Your task to perform on an android device: open app "ColorNote Notepad Notes" (install if not already installed) and go to login screen Image 0: 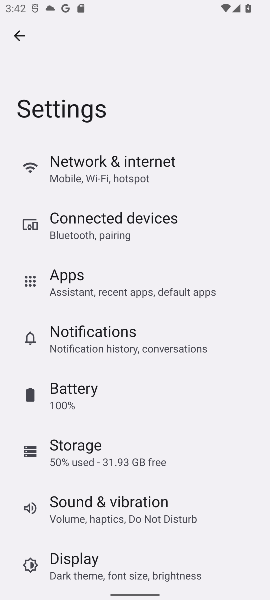
Step 0: press home button
Your task to perform on an android device: open app "ColorNote Notepad Notes" (install if not already installed) and go to login screen Image 1: 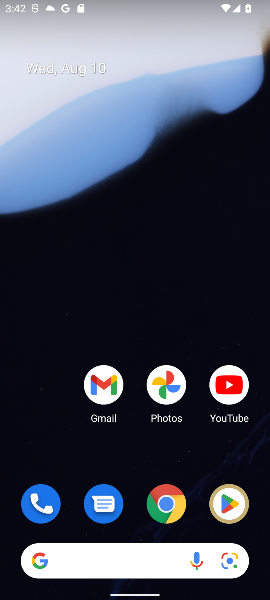
Step 1: click (222, 509)
Your task to perform on an android device: open app "ColorNote Notepad Notes" (install if not already installed) and go to login screen Image 2: 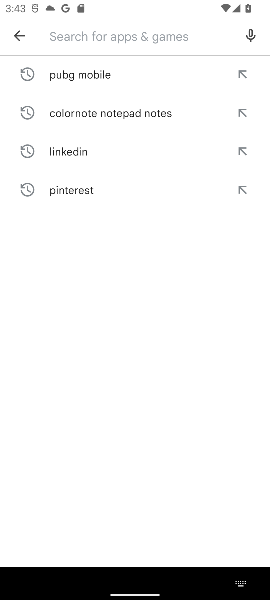
Step 2: click (76, 36)
Your task to perform on an android device: open app "ColorNote Notepad Notes" (install if not already installed) and go to login screen Image 3: 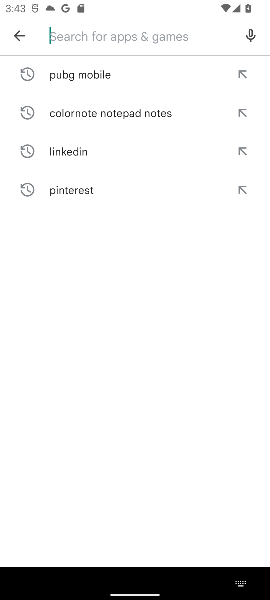
Step 3: type "ColorNote Notepad Notes"
Your task to perform on an android device: open app "ColorNote Notepad Notes" (install if not already installed) and go to login screen Image 4: 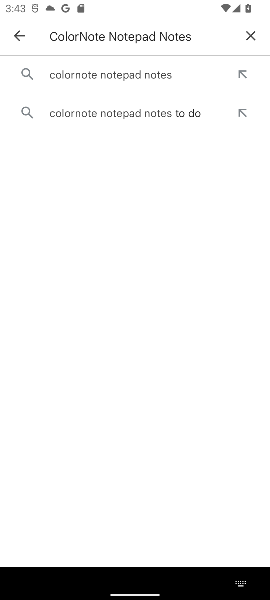
Step 4: click (125, 76)
Your task to perform on an android device: open app "ColorNote Notepad Notes" (install if not already installed) and go to login screen Image 5: 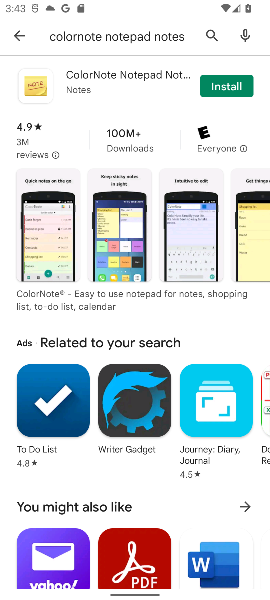
Step 5: click (218, 90)
Your task to perform on an android device: open app "ColorNote Notepad Notes" (install if not already installed) and go to login screen Image 6: 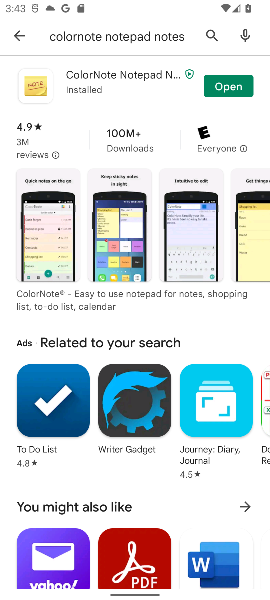
Step 6: click (228, 90)
Your task to perform on an android device: open app "ColorNote Notepad Notes" (install if not already installed) and go to login screen Image 7: 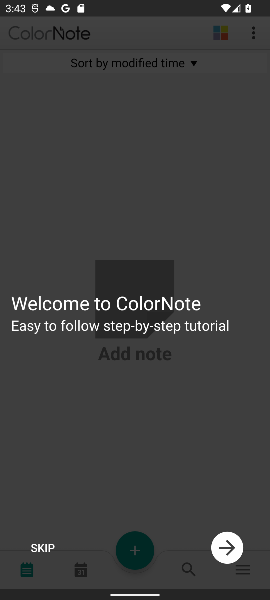
Step 7: click (45, 546)
Your task to perform on an android device: open app "ColorNote Notepad Notes" (install if not already installed) and go to login screen Image 8: 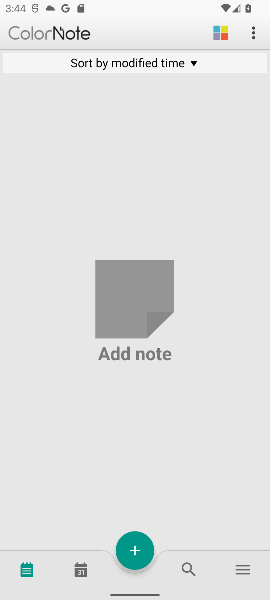
Step 8: click (249, 41)
Your task to perform on an android device: open app "ColorNote Notepad Notes" (install if not already installed) and go to login screen Image 9: 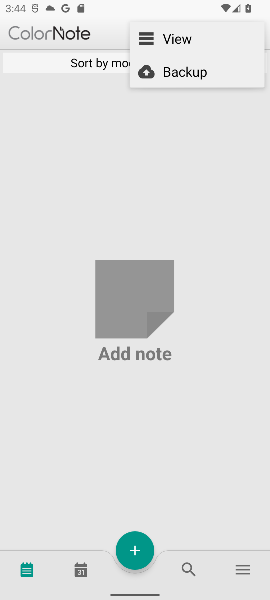
Step 9: click (157, 189)
Your task to perform on an android device: open app "ColorNote Notepad Notes" (install if not already installed) and go to login screen Image 10: 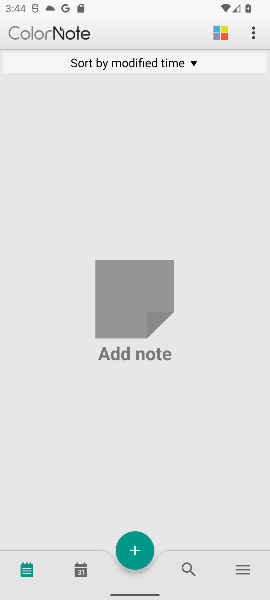
Step 10: click (251, 571)
Your task to perform on an android device: open app "ColorNote Notepad Notes" (install if not already installed) and go to login screen Image 11: 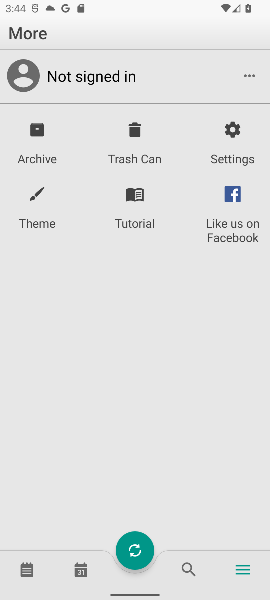
Step 11: click (145, 80)
Your task to perform on an android device: open app "ColorNote Notepad Notes" (install if not already installed) and go to login screen Image 12: 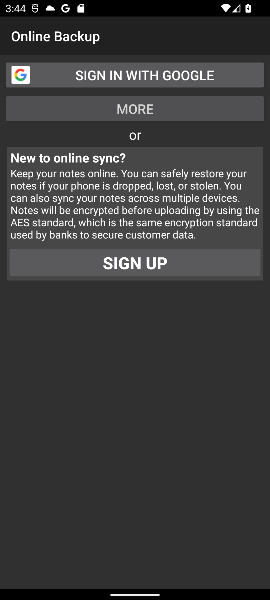
Step 12: task complete